Your task to perform on an android device: open app "WhatsApp Messenger" Image 0: 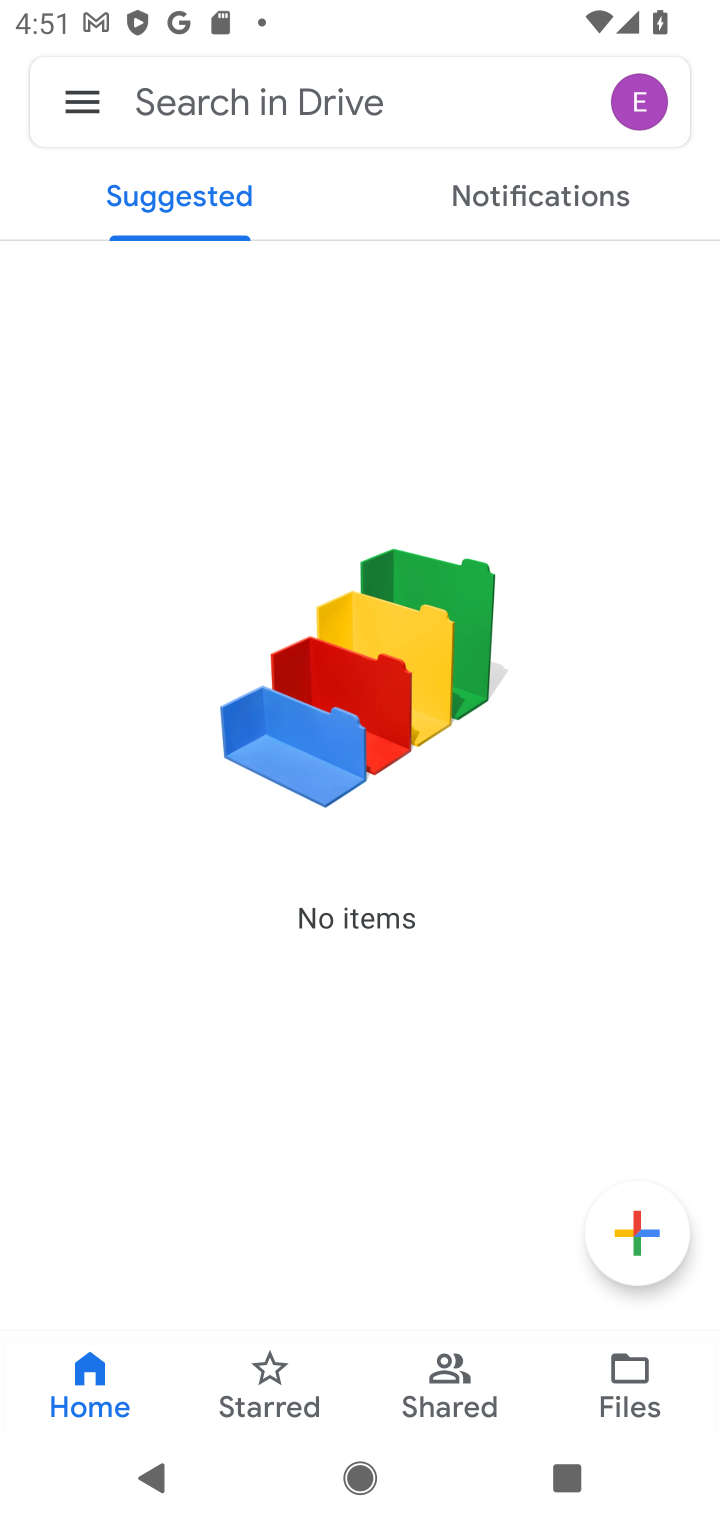
Step 0: press home button
Your task to perform on an android device: open app "WhatsApp Messenger" Image 1: 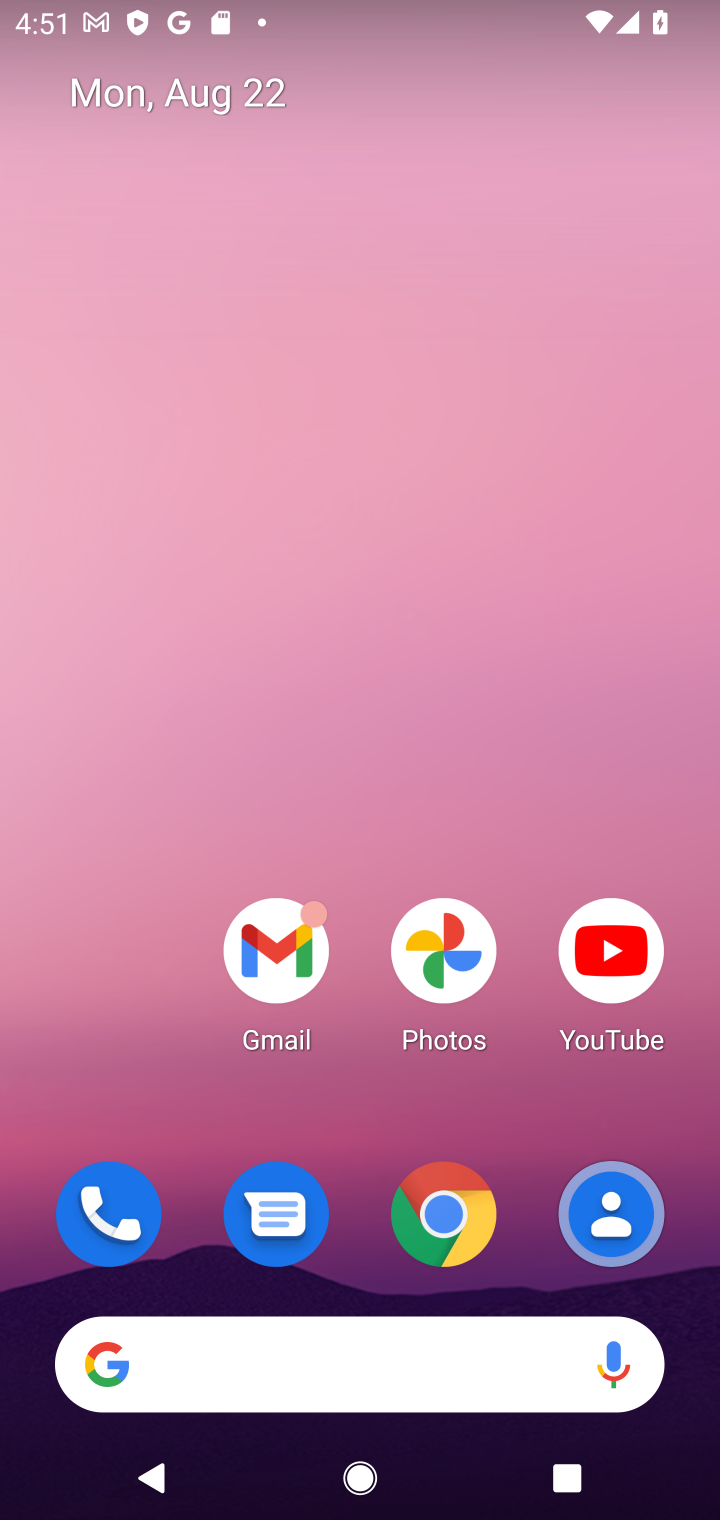
Step 1: drag from (495, 975) to (408, 55)
Your task to perform on an android device: open app "WhatsApp Messenger" Image 2: 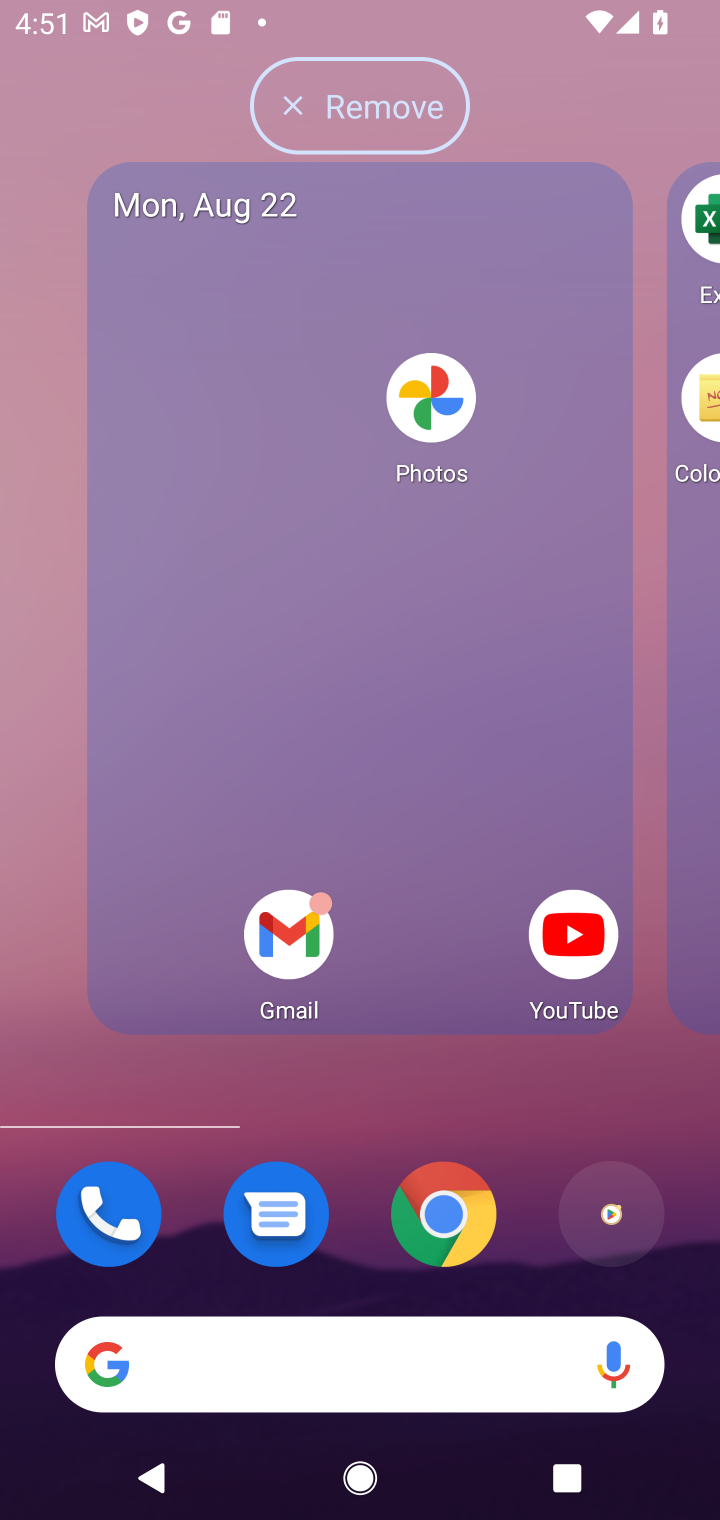
Step 2: drag from (117, 947) to (186, 222)
Your task to perform on an android device: open app "WhatsApp Messenger" Image 3: 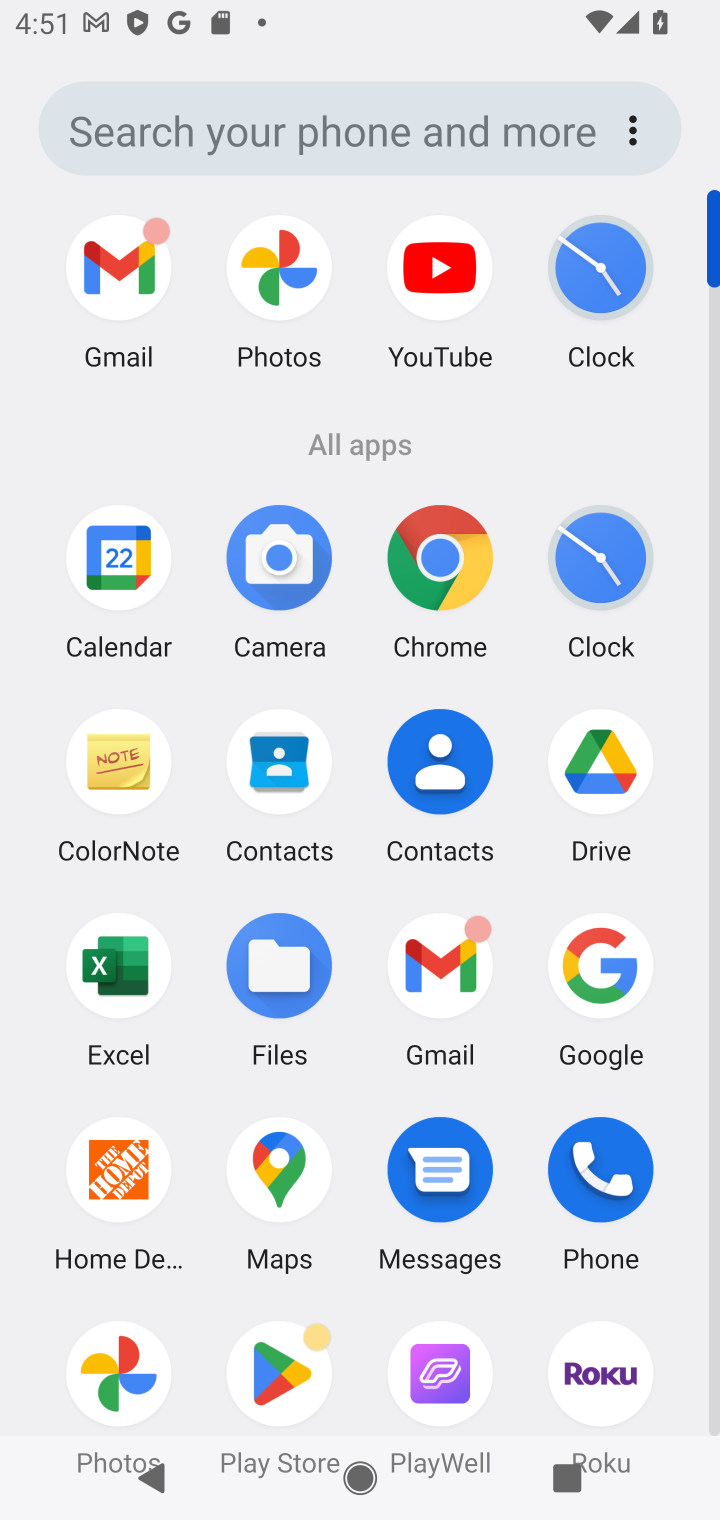
Step 3: click (280, 1376)
Your task to perform on an android device: open app "WhatsApp Messenger" Image 4: 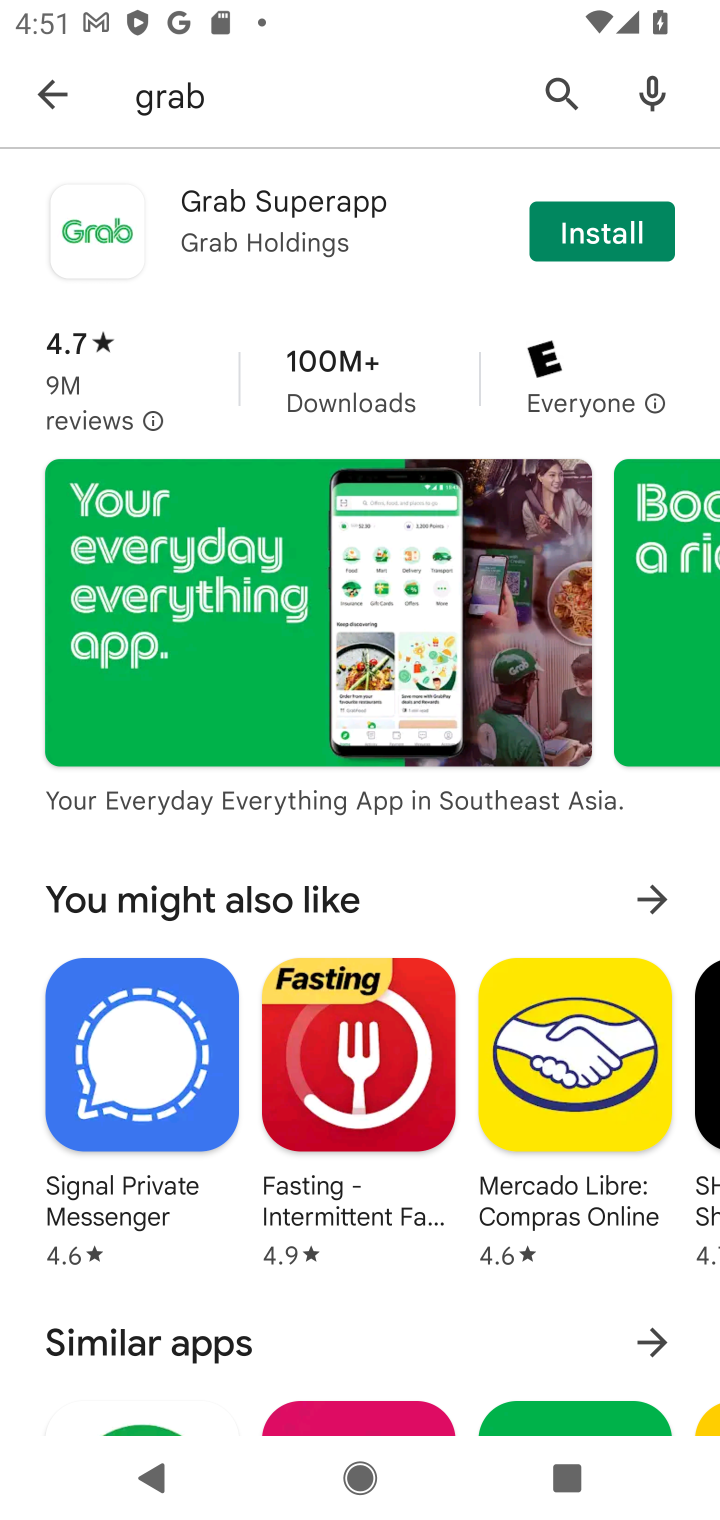
Step 4: click (554, 78)
Your task to perform on an android device: open app "WhatsApp Messenger" Image 5: 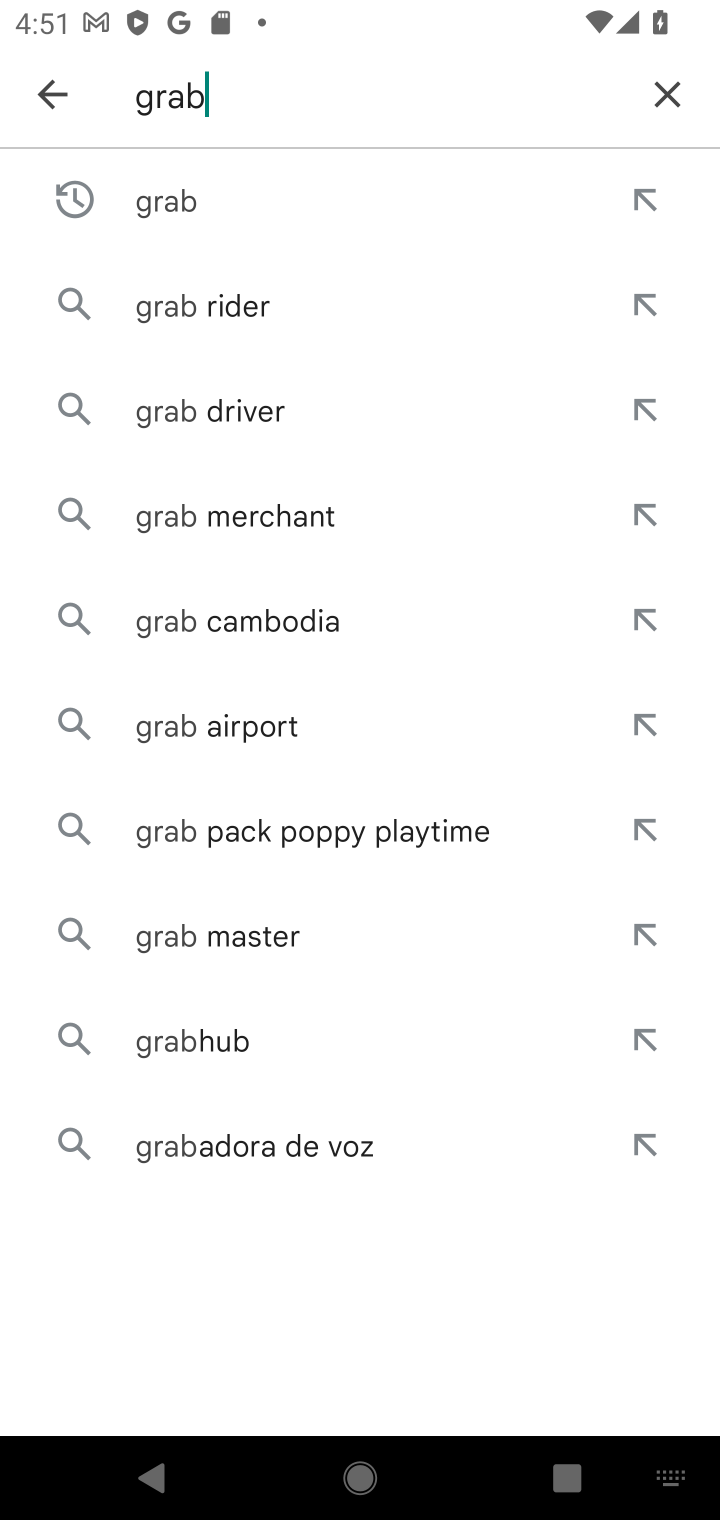
Step 5: click (668, 88)
Your task to perform on an android device: open app "WhatsApp Messenger" Image 6: 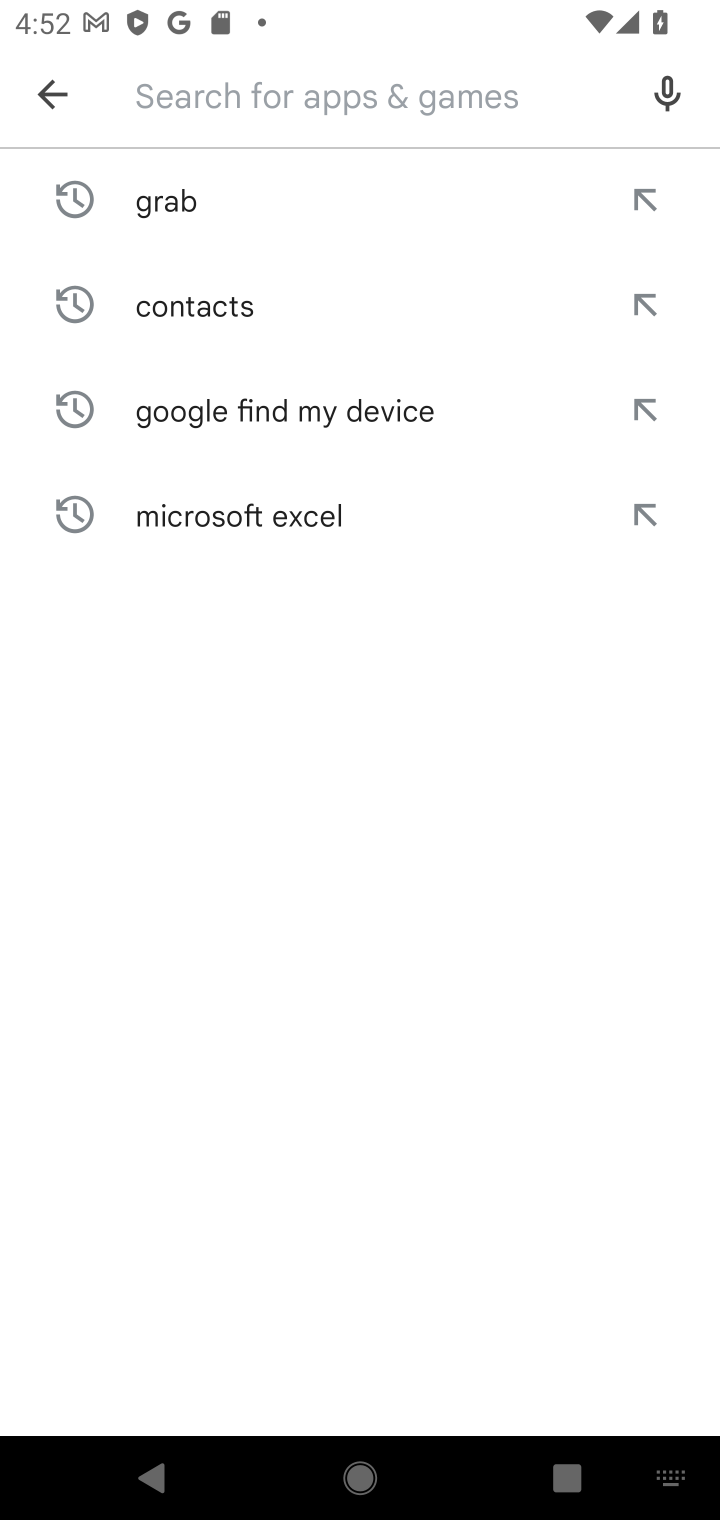
Step 6: type "whatsAPP Messenger"
Your task to perform on an android device: open app "WhatsApp Messenger" Image 7: 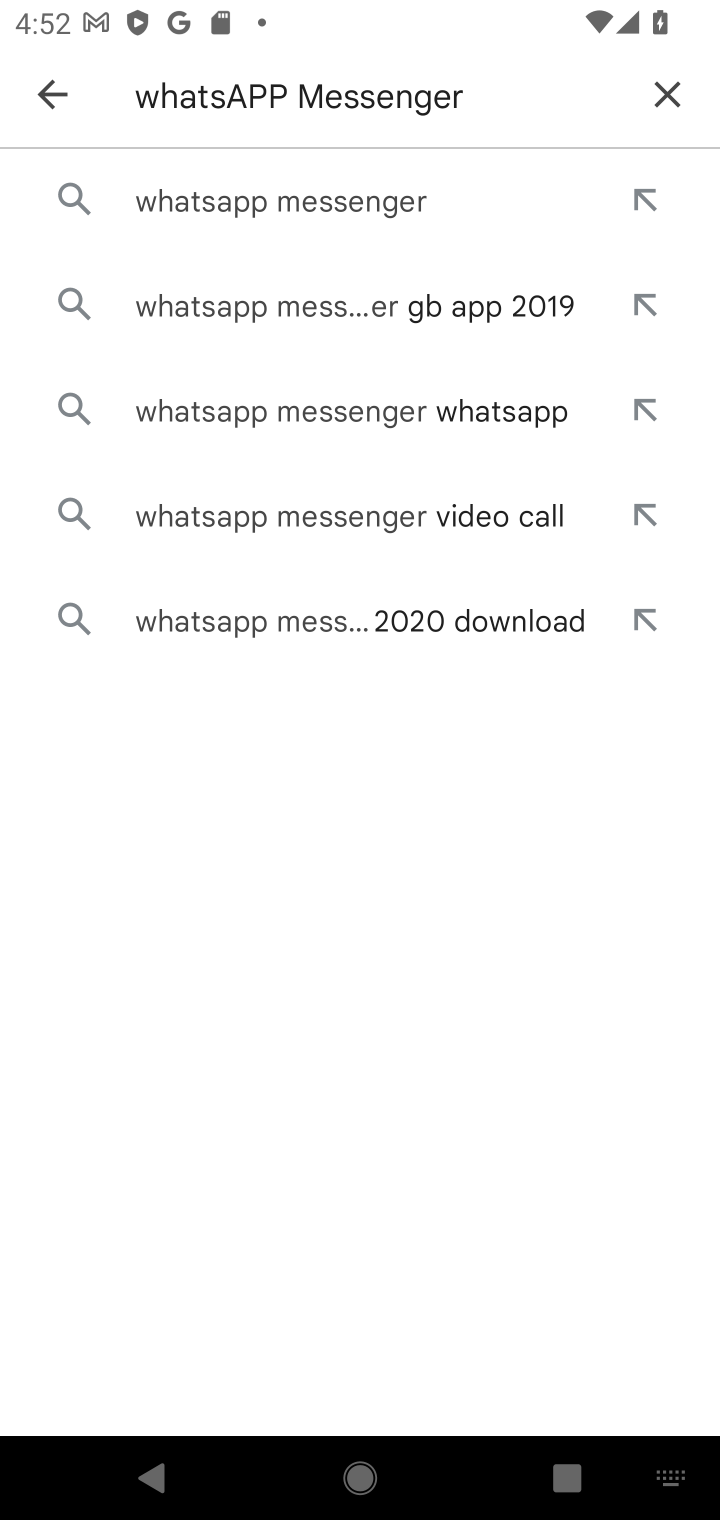
Step 7: click (307, 215)
Your task to perform on an android device: open app "WhatsApp Messenger" Image 8: 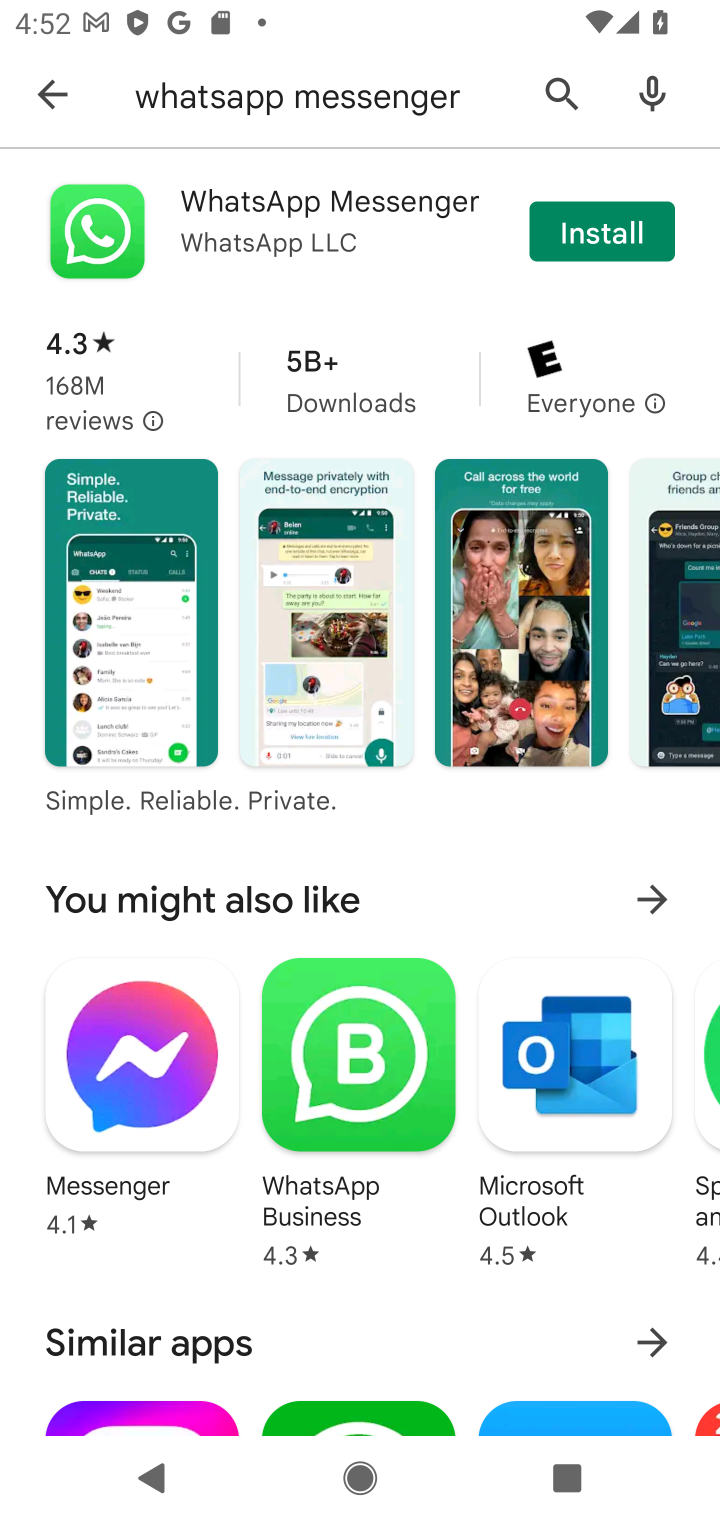
Step 8: task complete